Your task to perform on an android device: Go to accessibility settings Image 0: 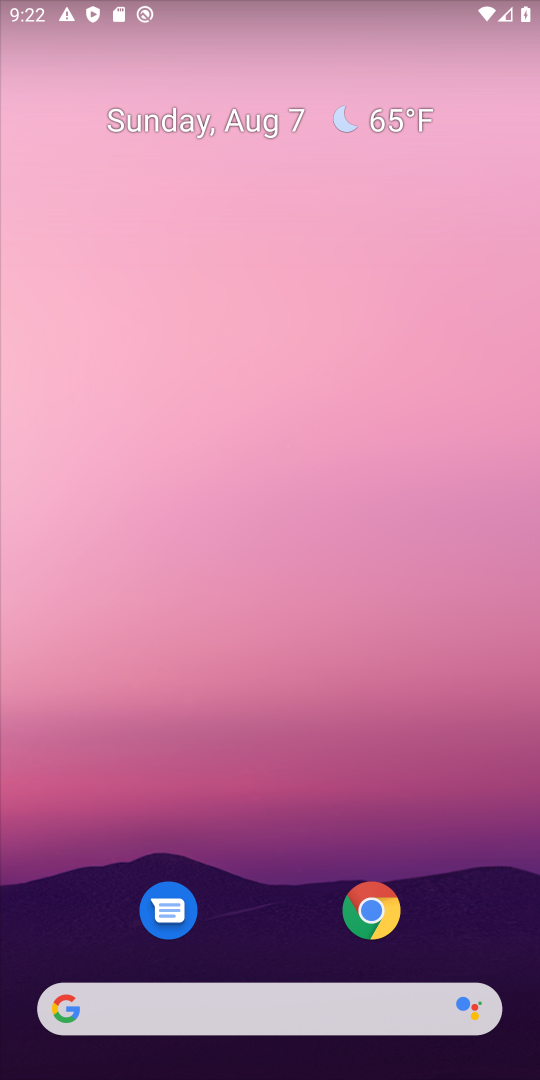
Step 0: drag from (195, 843) to (279, 355)
Your task to perform on an android device: Go to accessibility settings Image 1: 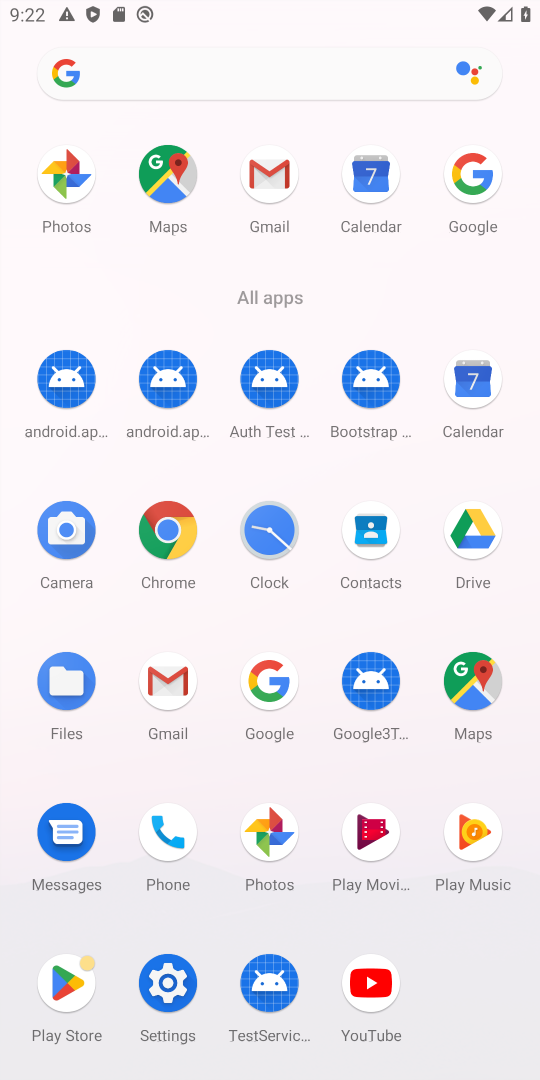
Step 1: click (152, 993)
Your task to perform on an android device: Go to accessibility settings Image 2: 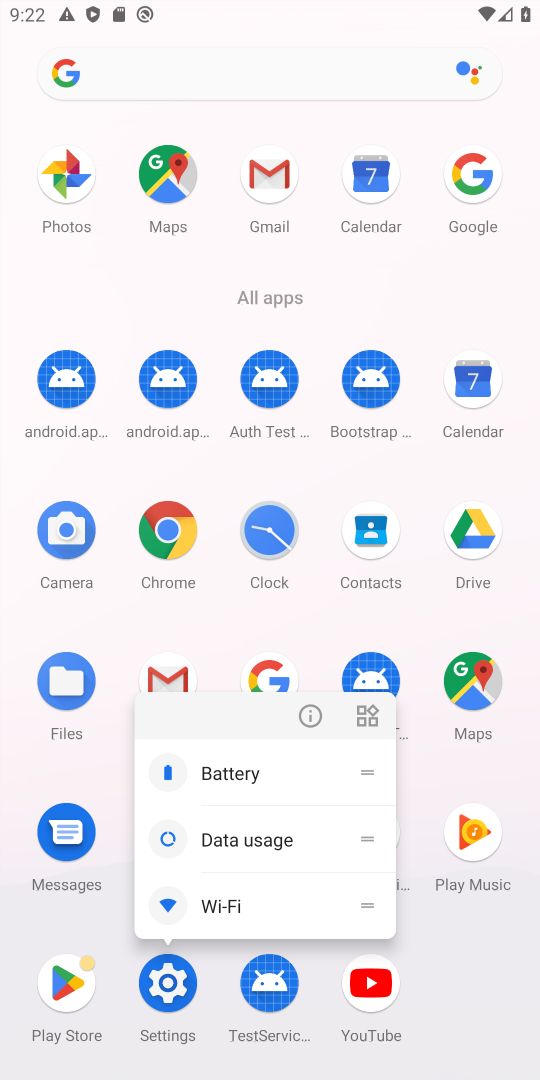
Step 2: click (177, 965)
Your task to perform on an android device: Go to accessibility settings Image 3: 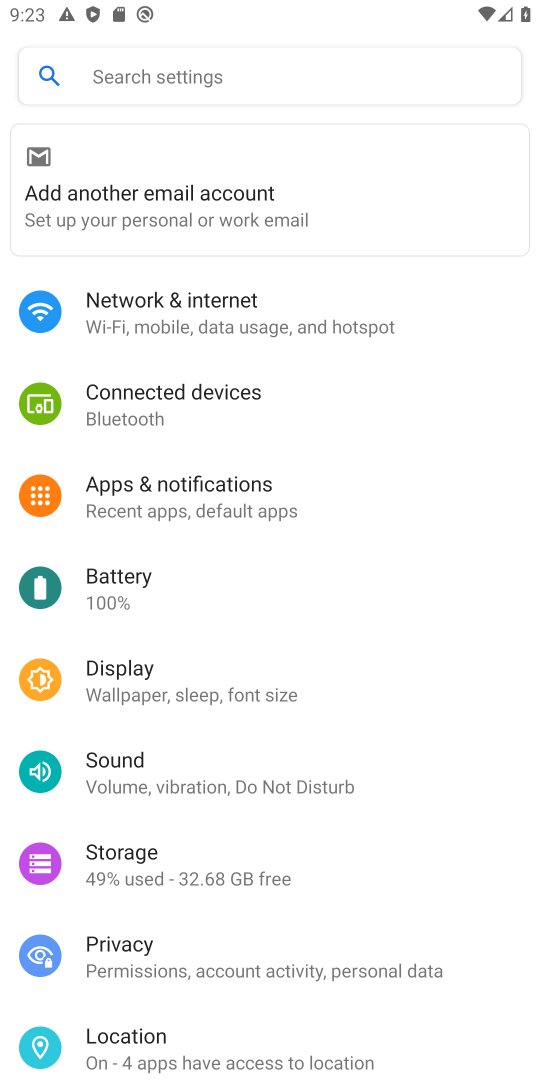
Step 3: drag from (155, 934) to (193, 410)
Your task to perform on an android device: Go to accessibility settings Image 4: 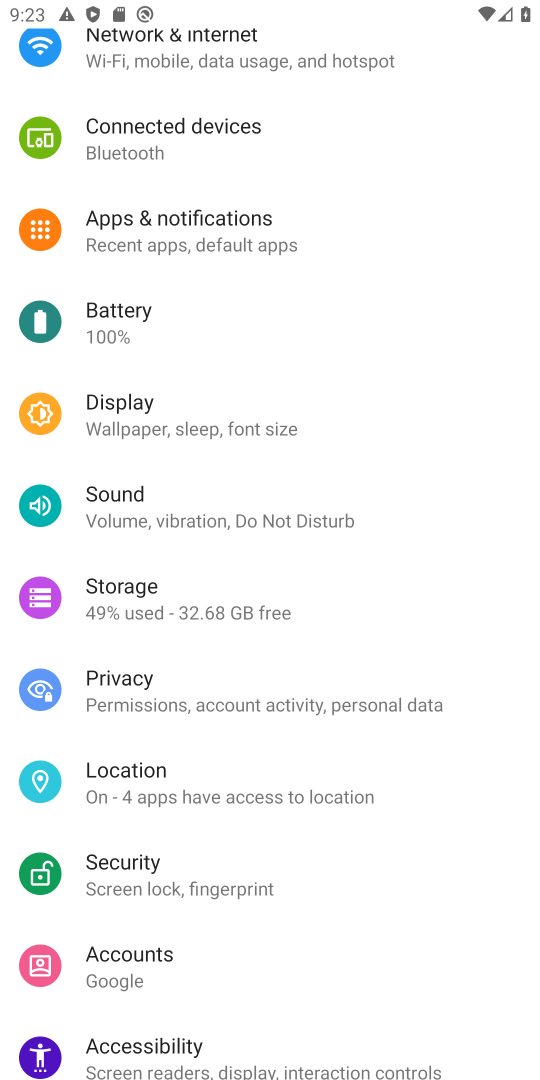
Step 4: click (145, 1065)
Your task to perform on an android device: Go to accessibility settings Image 5: 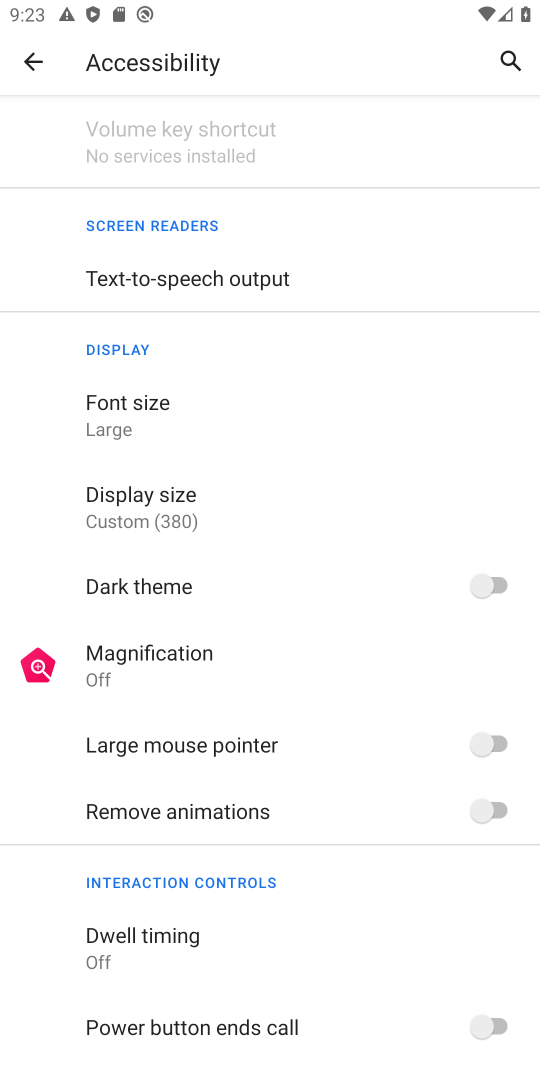
Step 5: task complete